Your task to perform on an android device: turn on notifications settings in the gmail app Image 0: 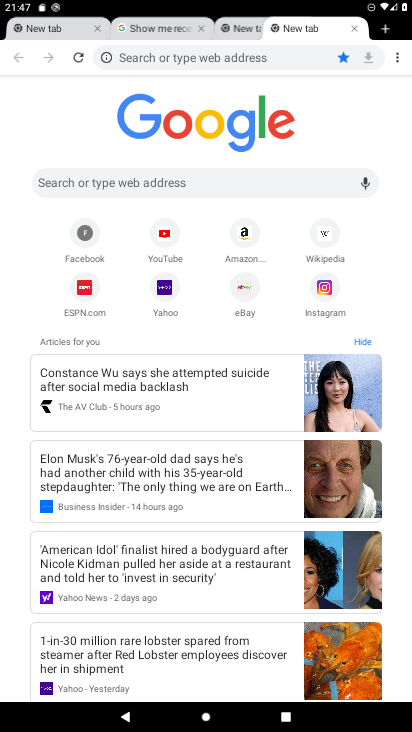
Step 0: click (405, 53)
Your task to perform on an android device: turn on notifications settings in the gmail app Image 1: 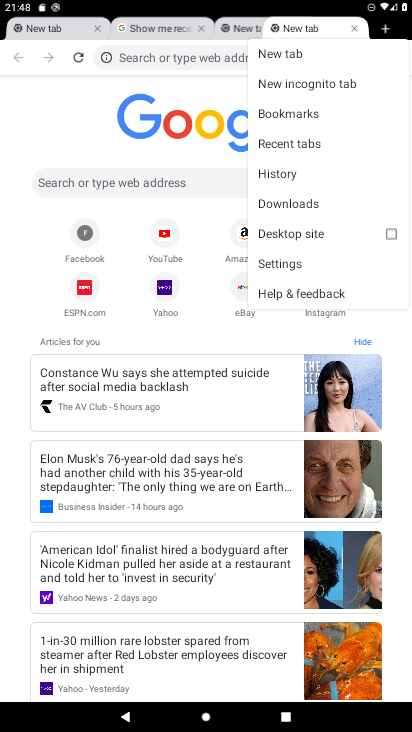
Step 1: click (287, 264)
Your task to perform on an android device: turn on notifications settings in the gmail app Image 2: 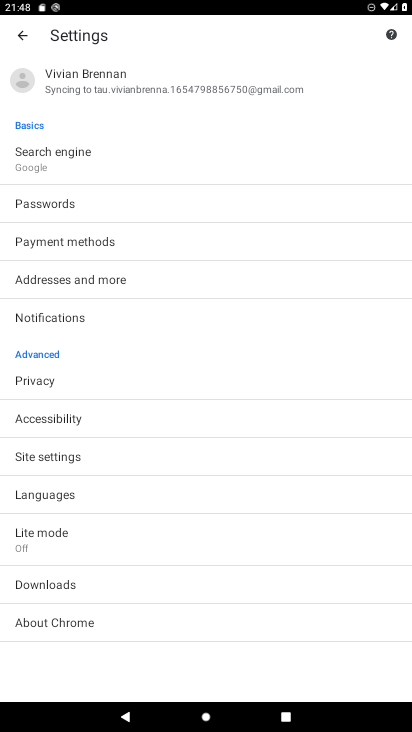
Step 2: press home button
Your task to perform on an android device: turn on notifications settings in the gmail app Image 3: 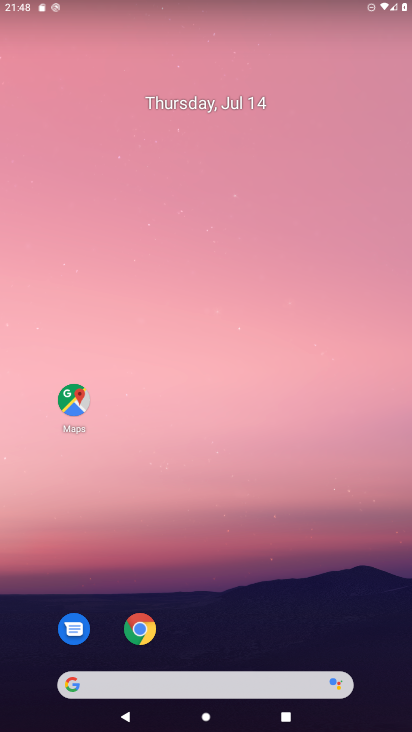
Step 3: drag from (122, 559) to (157, 185)
Your task to perform on an android device: turn on notifications settings in the gmail app Image 4: 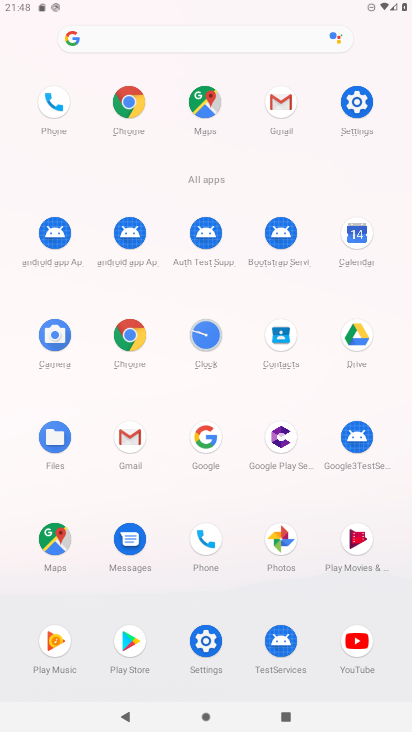
Step 4: click (285, 94)
Your task to perform on an android device: turn on notifications settings in the gmail app Image 5: 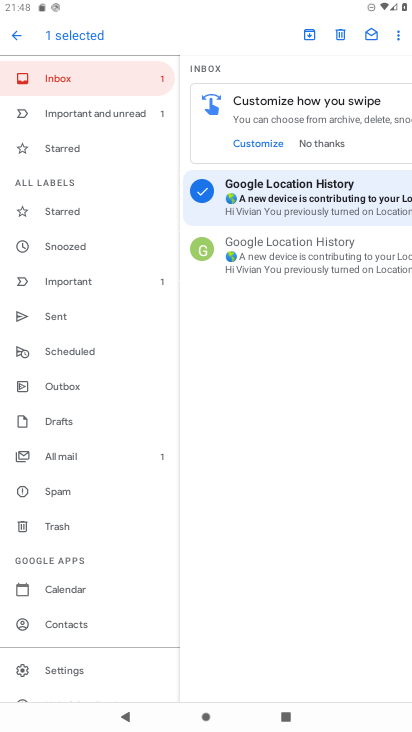
Step 5: click (82, 671)
Your task to perform on an android device: turn on notifications settings in the gmail app Image 6: 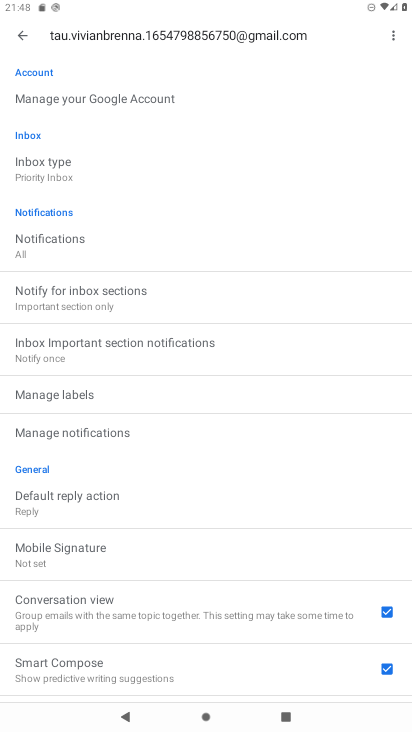
Step 6: click (50, 258)
Your task to perform on an android device: turn on notifications settings in the gmail app Image 7: 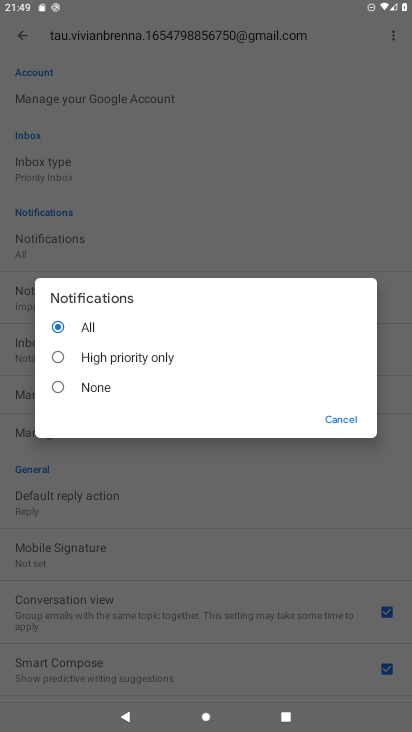
Step 7: task complete